Your task to perform on an android device: Search for "logitech g903" on walmart, select the first entry, add it to the cart, then select checkout. Image 0: 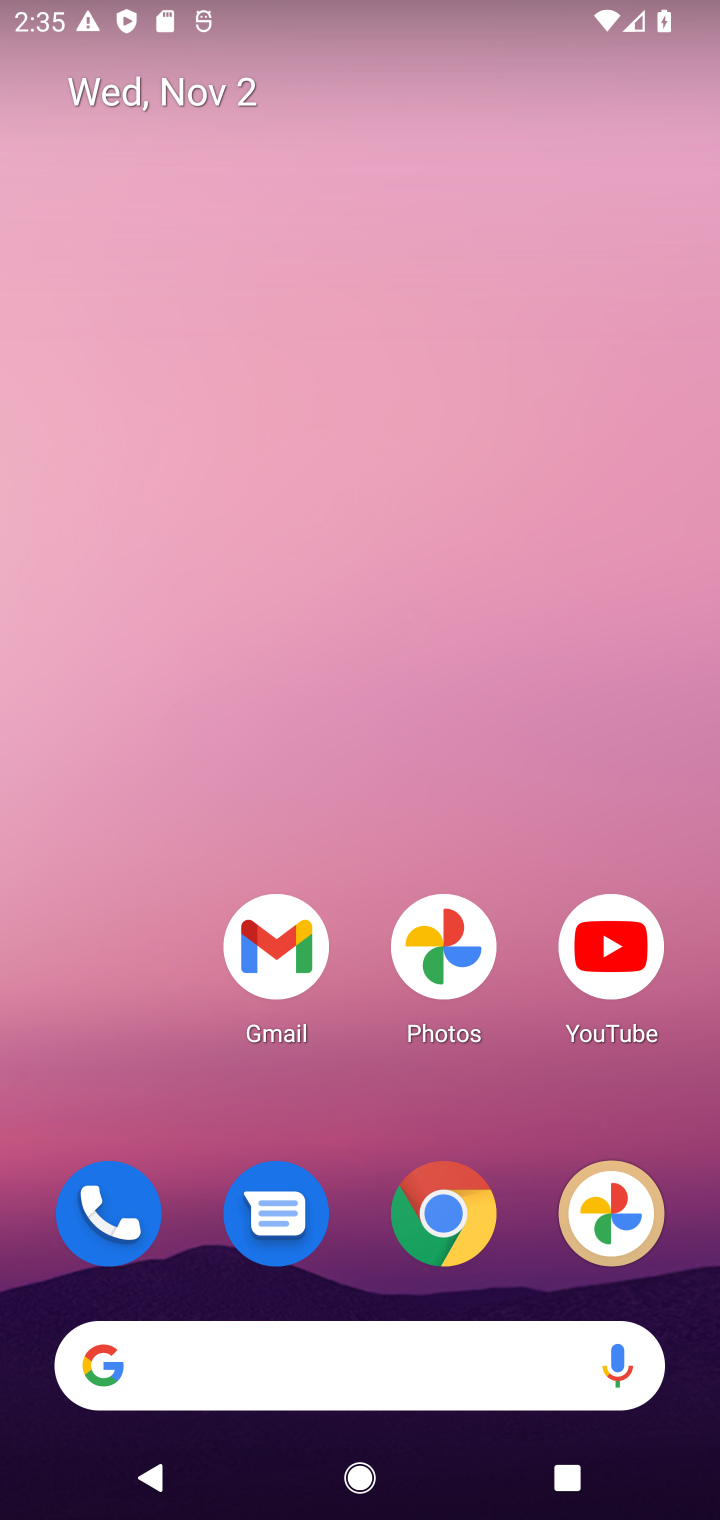
Step 0: click (423, 1232)
Your task to perform on an android device: Search for "logitech g903" on walmart, select the first entry, add it to the cart, then select checkout. Image 1: 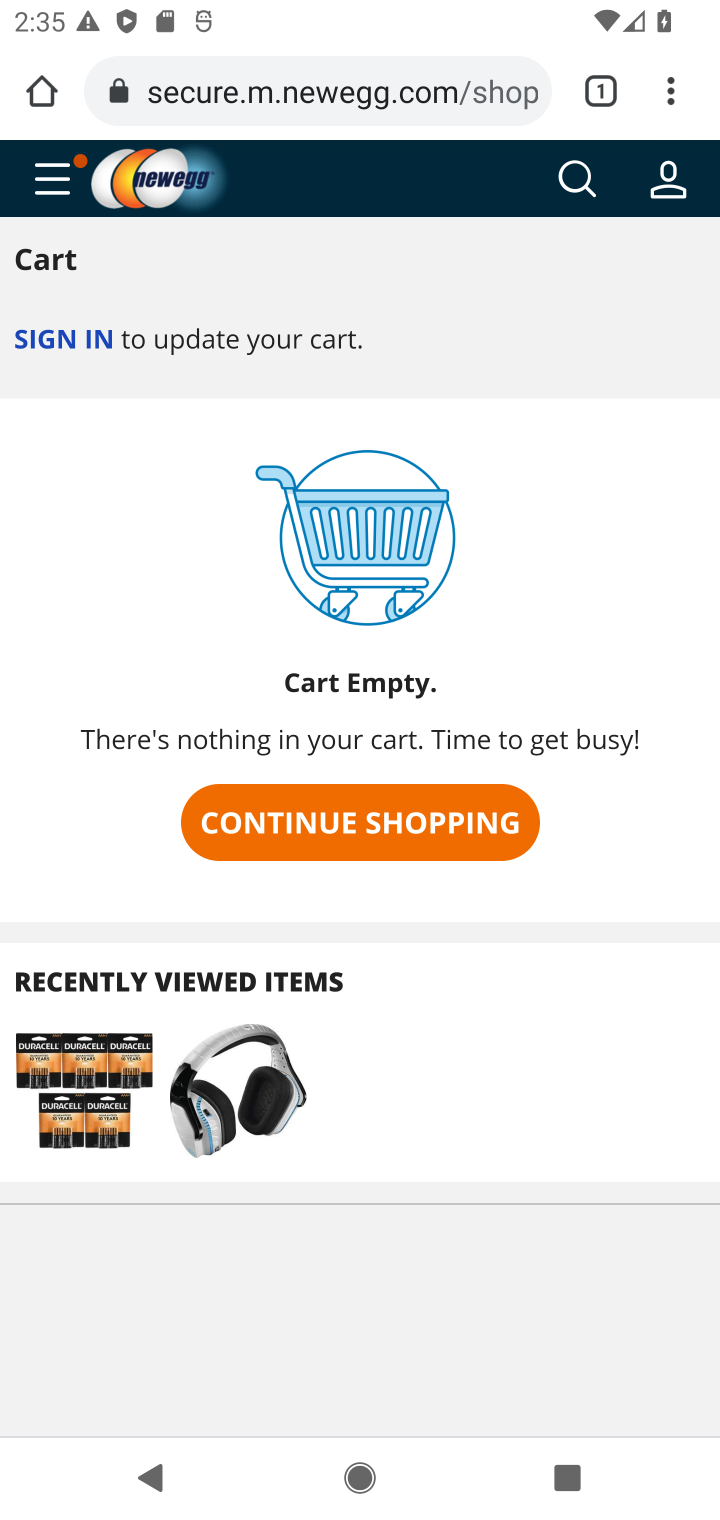
Step 1: click (438, 86)
Your task to perform on an android device: Search for "logitech g903" on walmart, select the first entry, add it to the cart, then select checkout. Image 2: 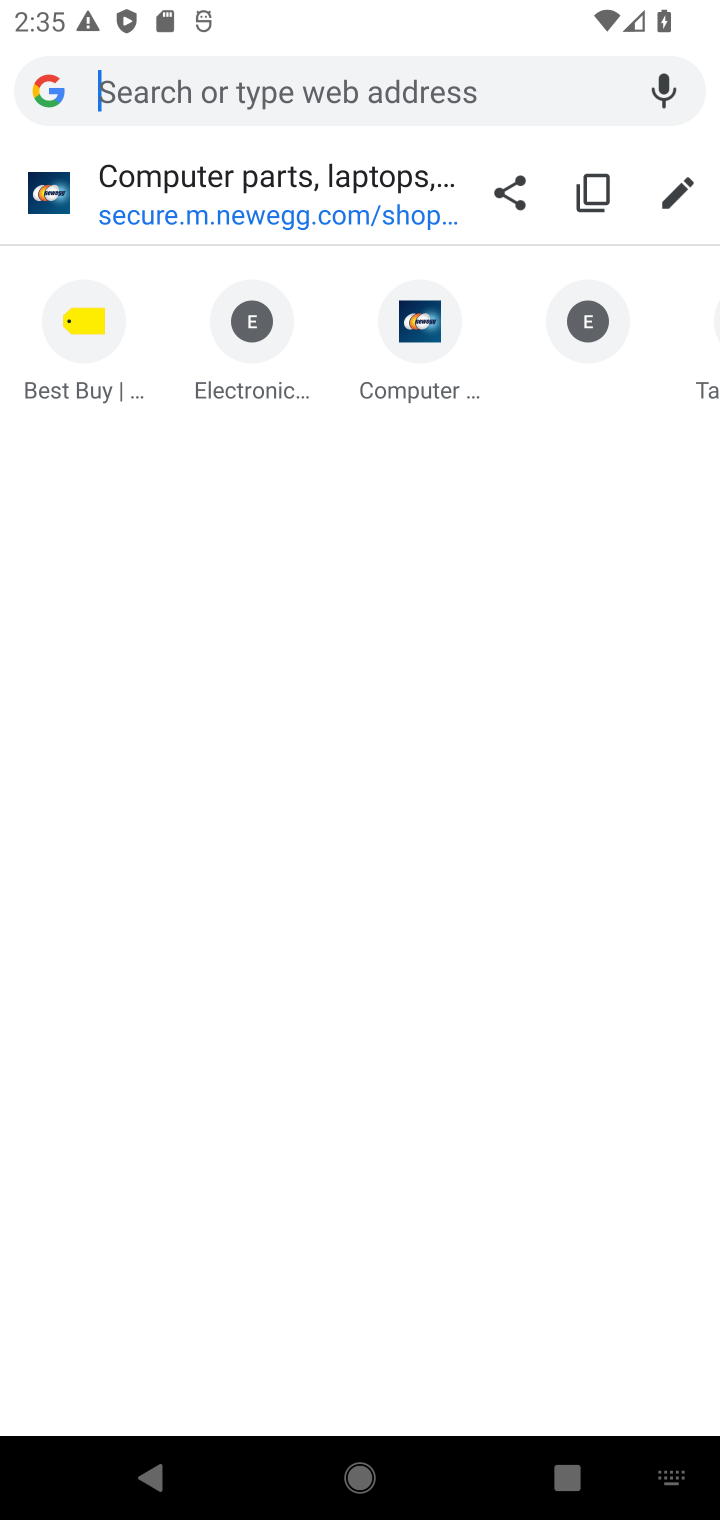
Step 2: type "walmart"
Your task to perform on an android device: Search for "logitech g903" on walmart, select the first entry, add it to the cart, then select checkout. Image 3: 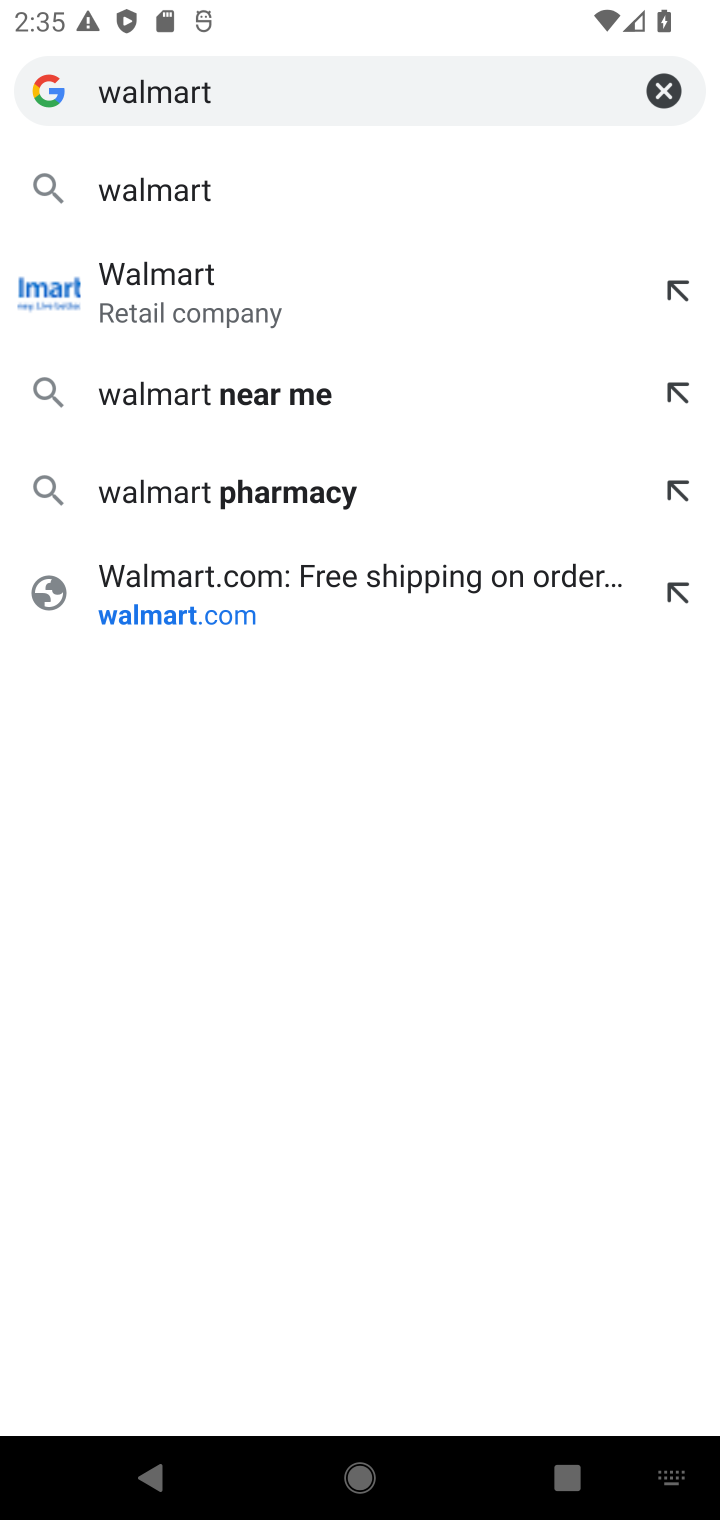
Step 3: click (158, 197)
Your task to perform on an android device: Search for "logitech g903" on walmart, select the first entry, add it to the cart, then select checkout. Image 4: 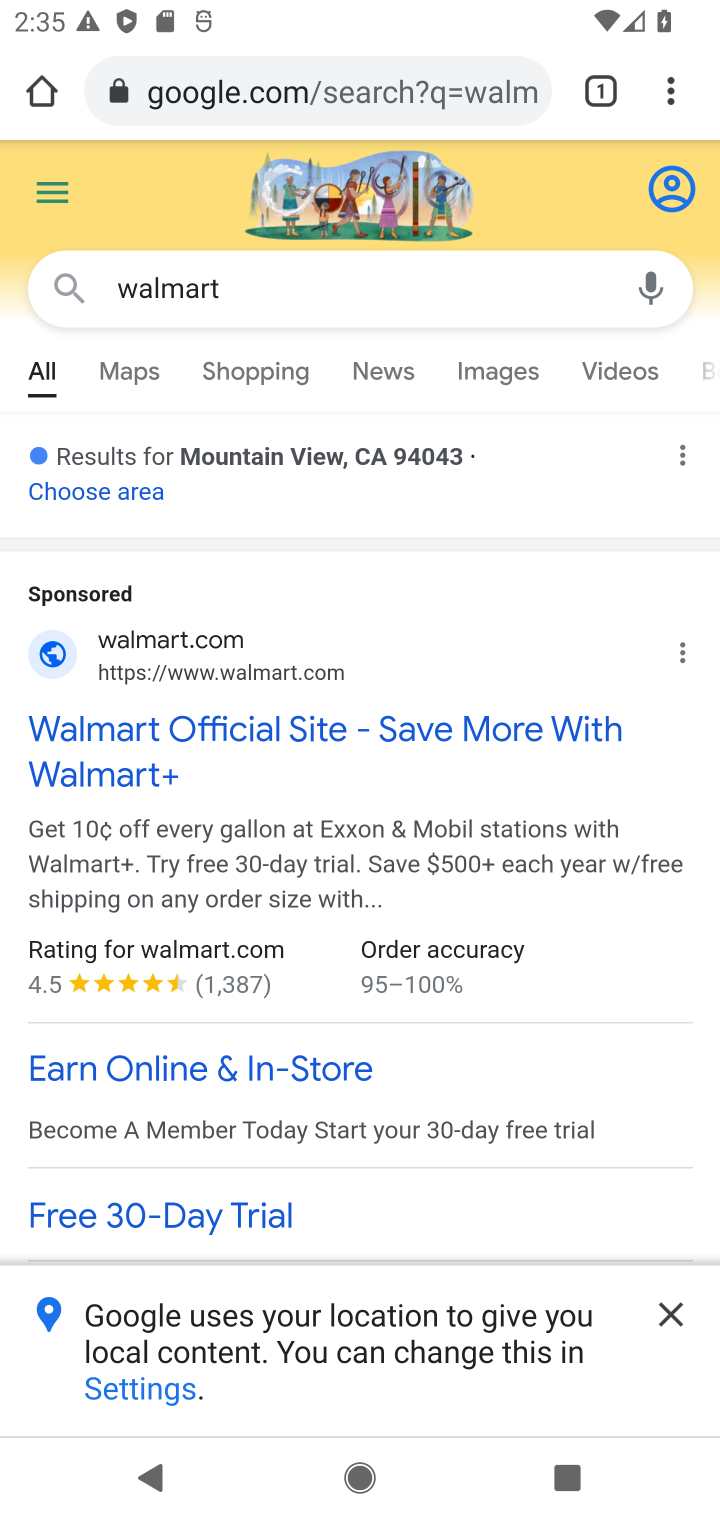
Step 4: drag from (556, 1060) to (457, 410)
Your task to perform on an android device: Search for "logitech g903" on walmart, select the first entry, add it to the cart, then select checkout. Image 5: 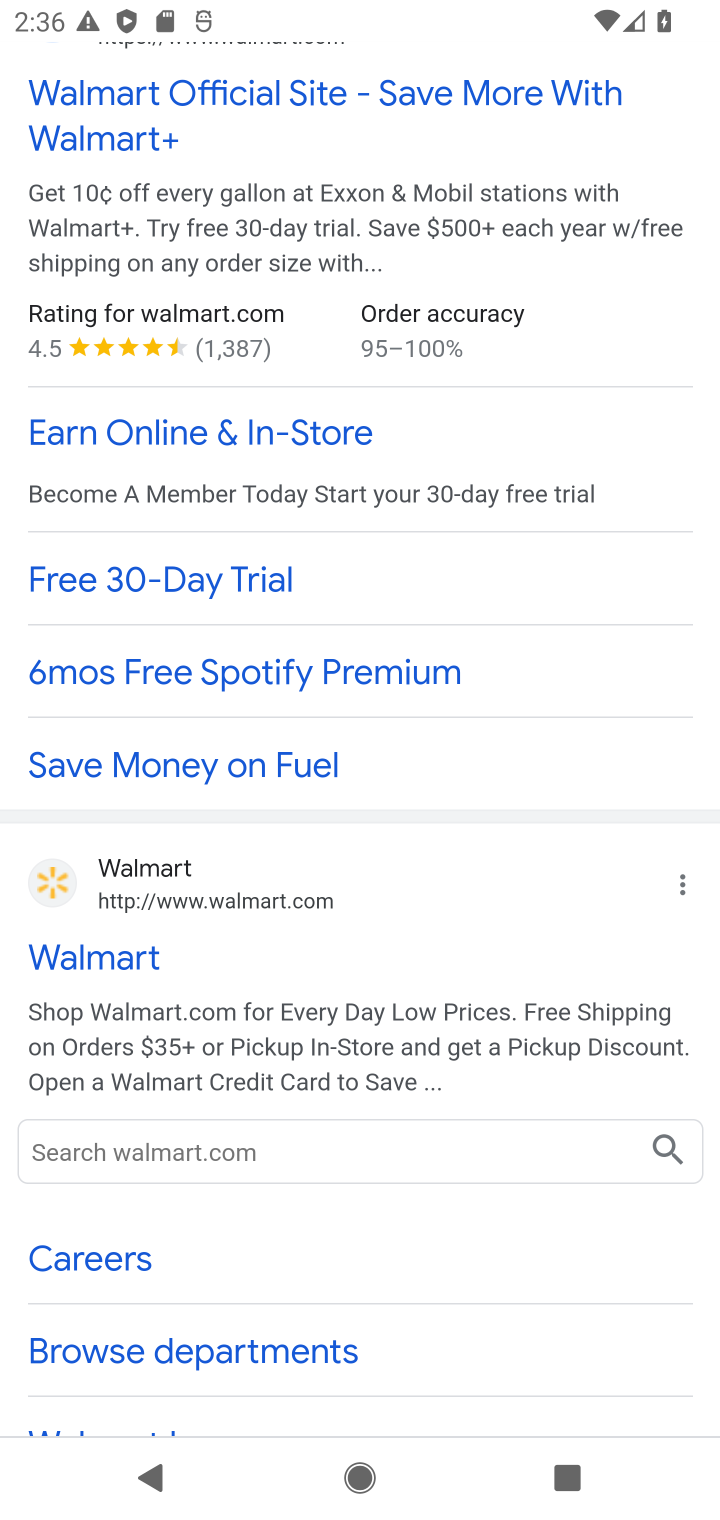
Step 5: click (99, 957)
Your task to perform on an android device: Search for "logitech g903" on walmart, select the first entry, add it to the cart, then select checkout. Image 6: 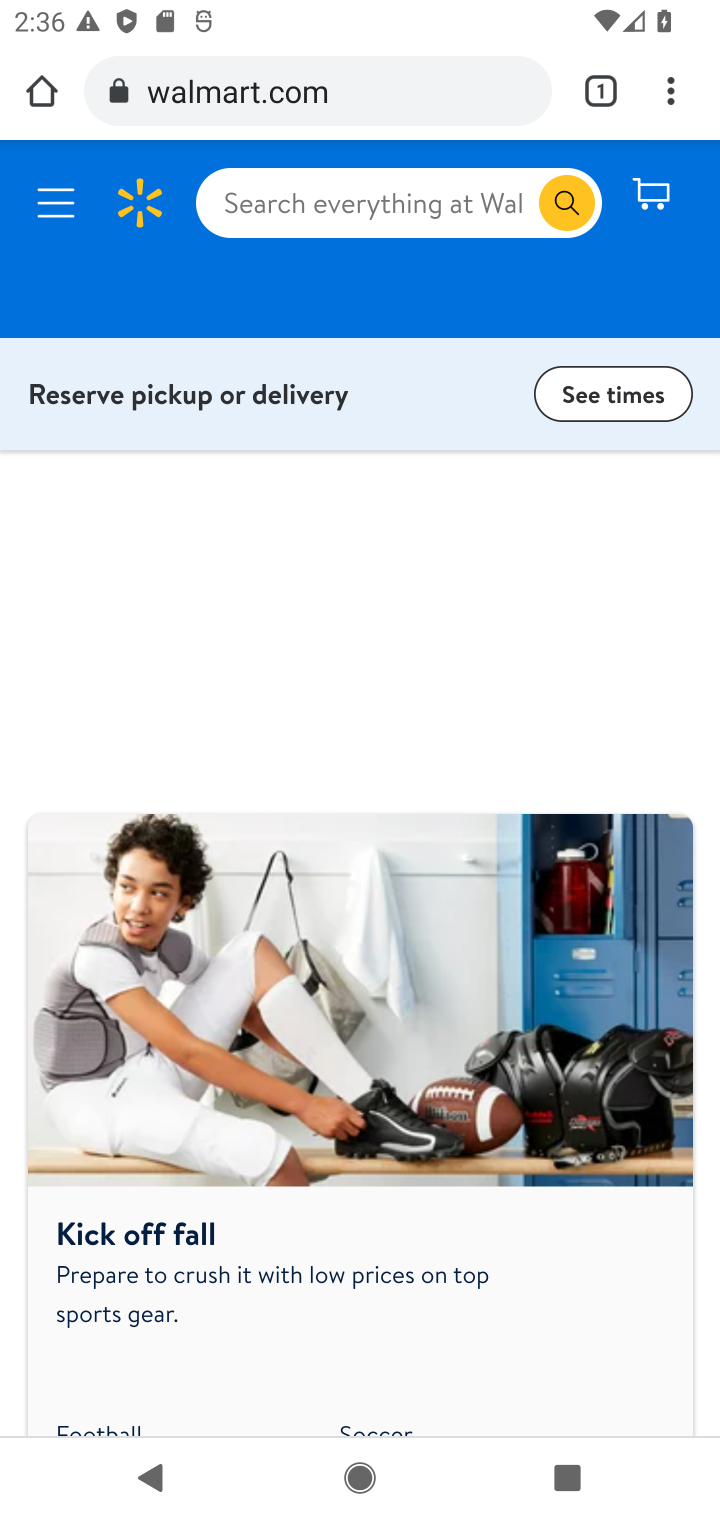
Step 6: click (437, 187)
Your task to perform on an android device: Search for "logitech g903" on walmart, select the first entry, add it to the cart, then select checkout. Image 7: 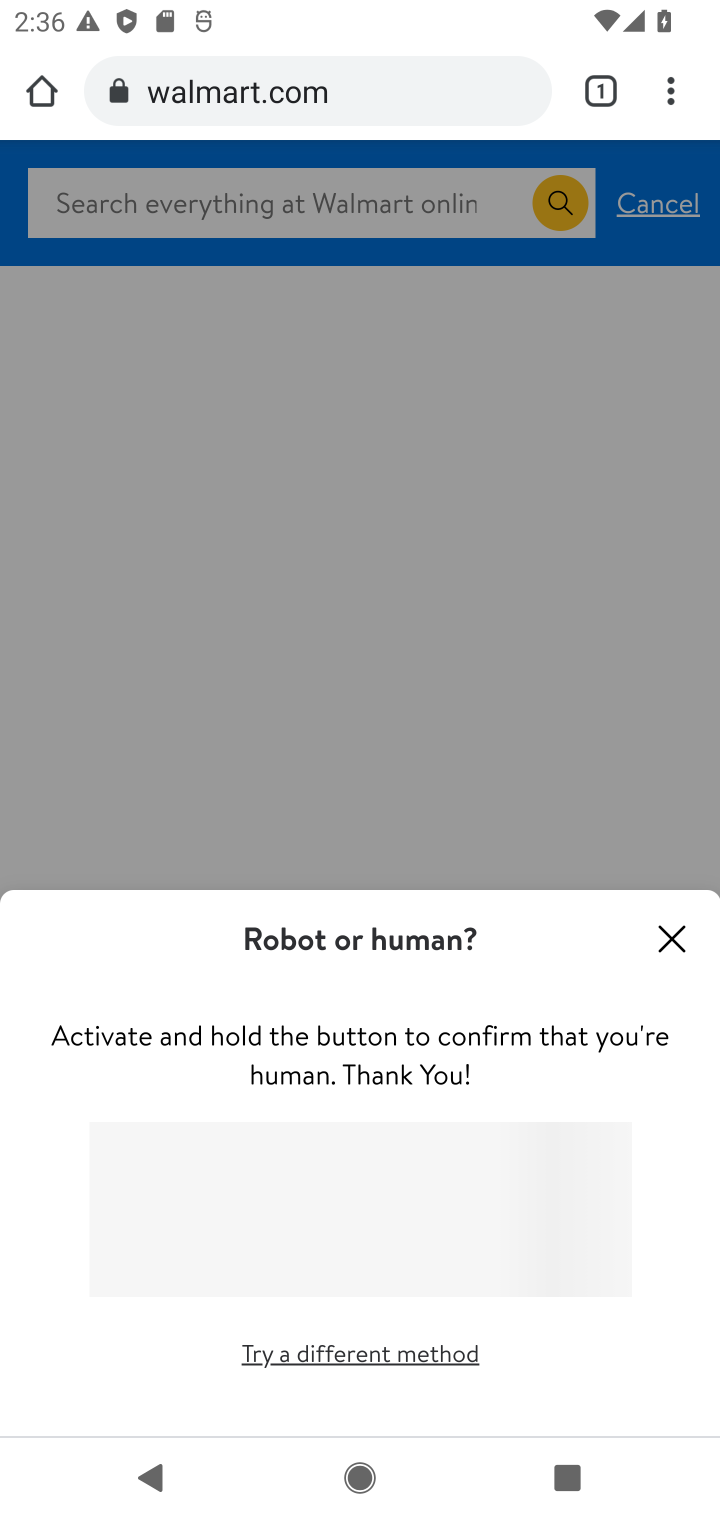
Step 7: click (669, 1110)
Your task to perform on an android device: Search for "logitech g903" on walmart, select the first entry, add it to the cart, then select checkout. Image 8: 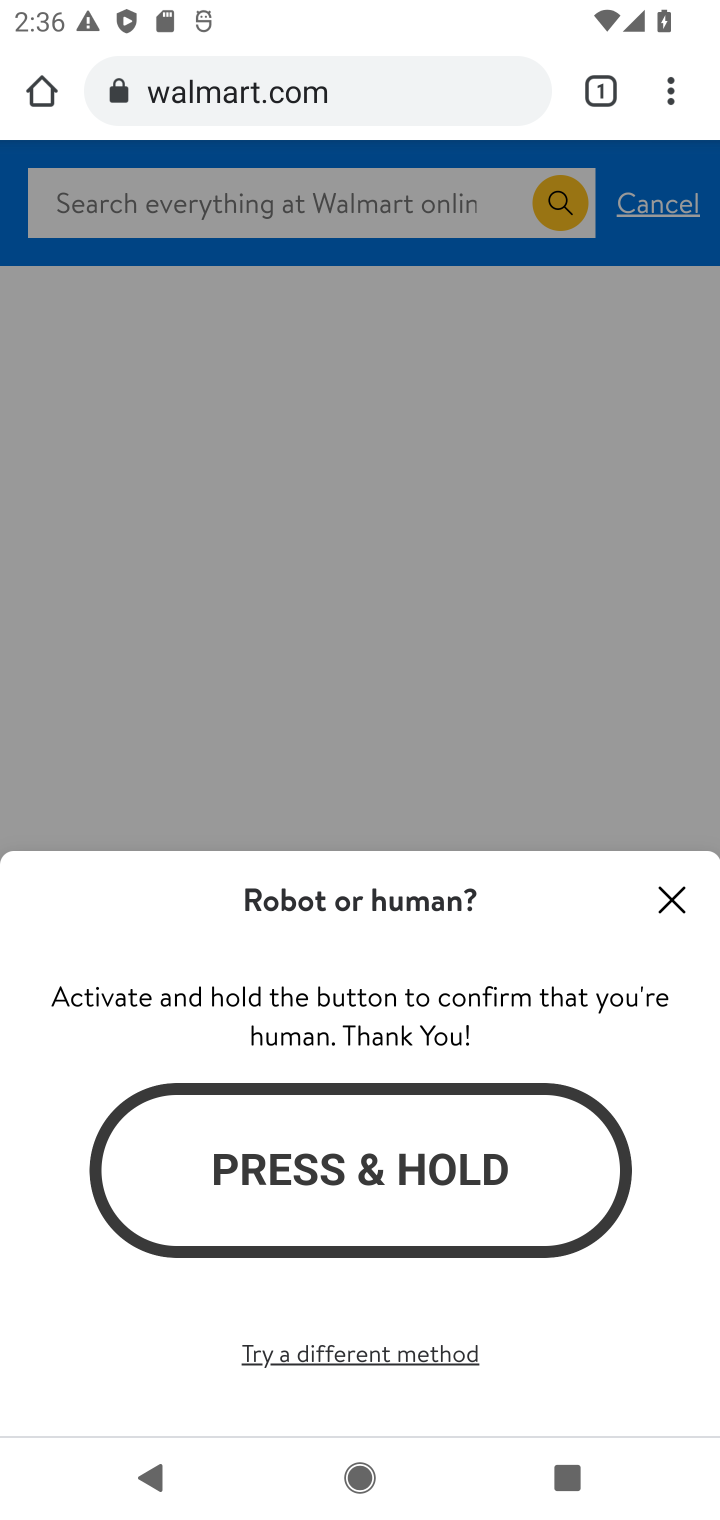
Step 8: click (668, 895)
Your task to perform on an android device: Search for "logitech g903" on walmart, select the first entry, add it to the cart, then select checkout. Image 9: 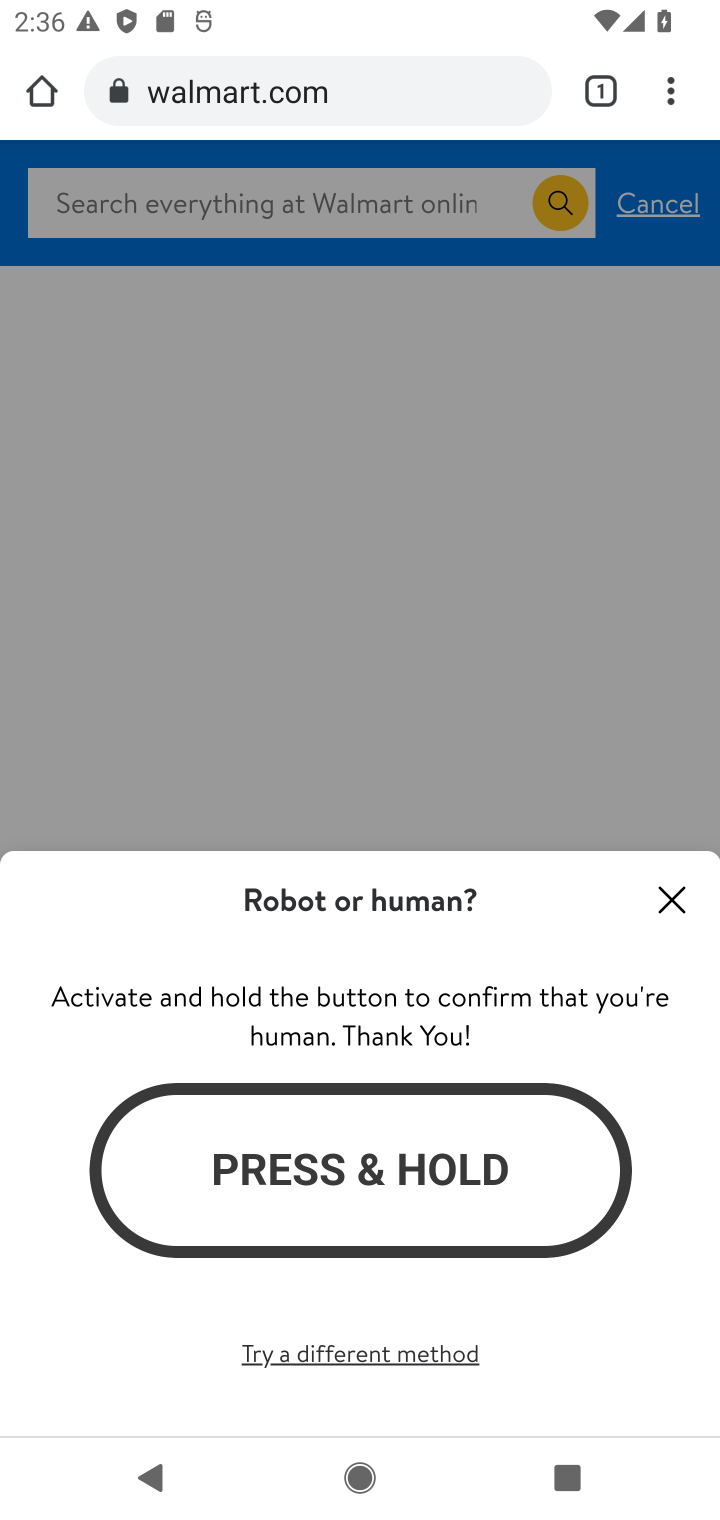
Step 9: click (435, 1179)
Your task to perform on an android device: Search for "logitech g903" on walmart, select the first entry, add it to the cart, then select checkout. Image 10: 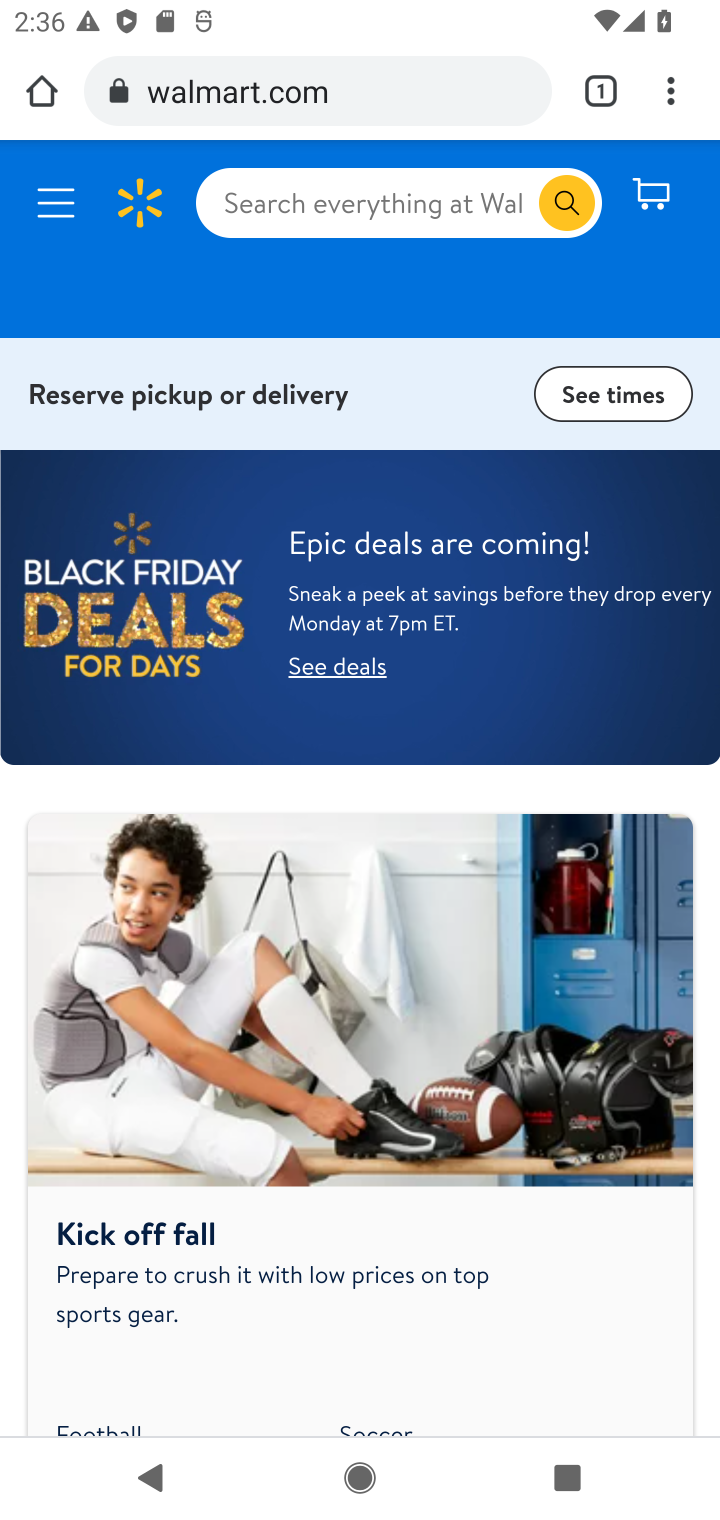
Step 10: click (443, 201)
Your task to perform on an android device: Search for "logitech g903" on walmart, select the first entry, add it to the cart, then select checkout. Image 11: 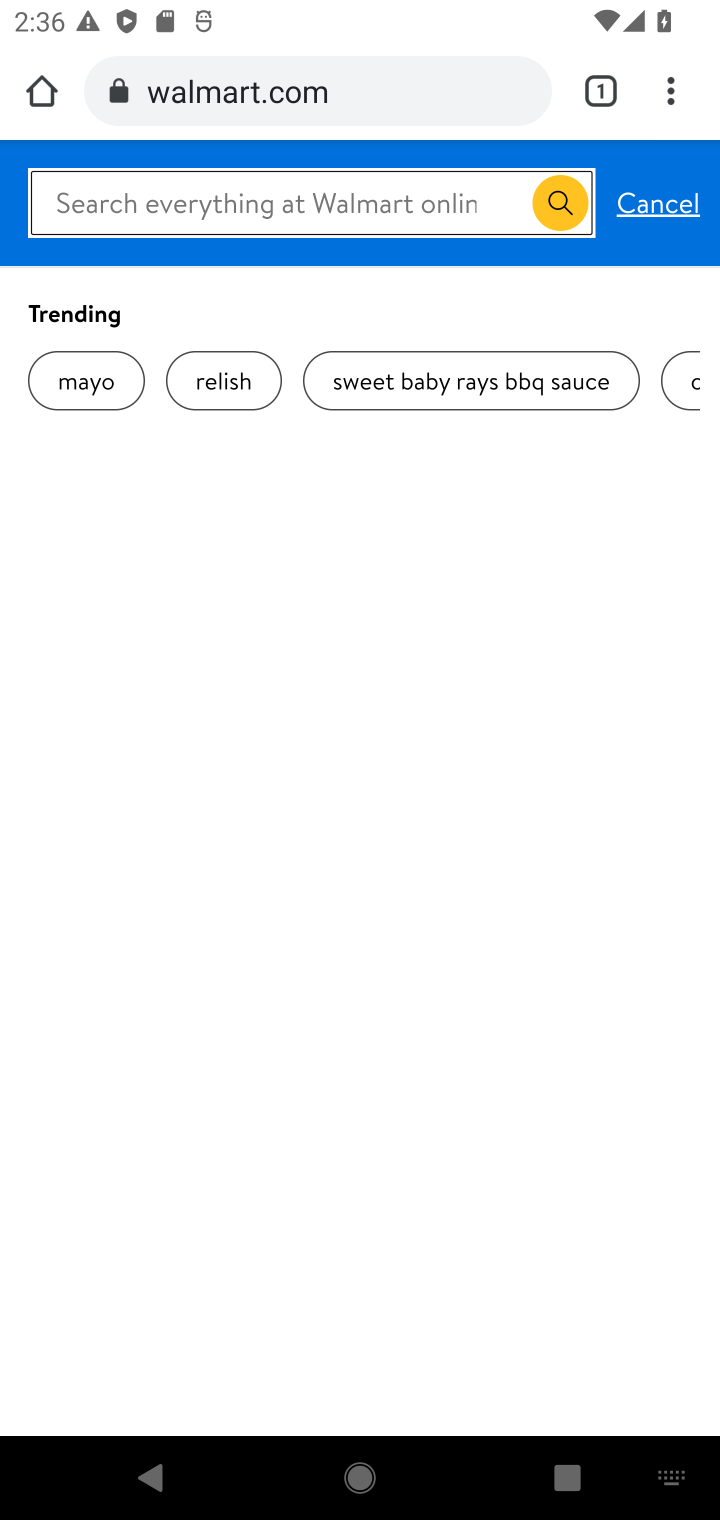
Step 11: type "logitech g903"
Your task to perform on an android device: Search for "logitech g903" on walmart, select the first entry, add it to the cart, then select checkout. Image 12: 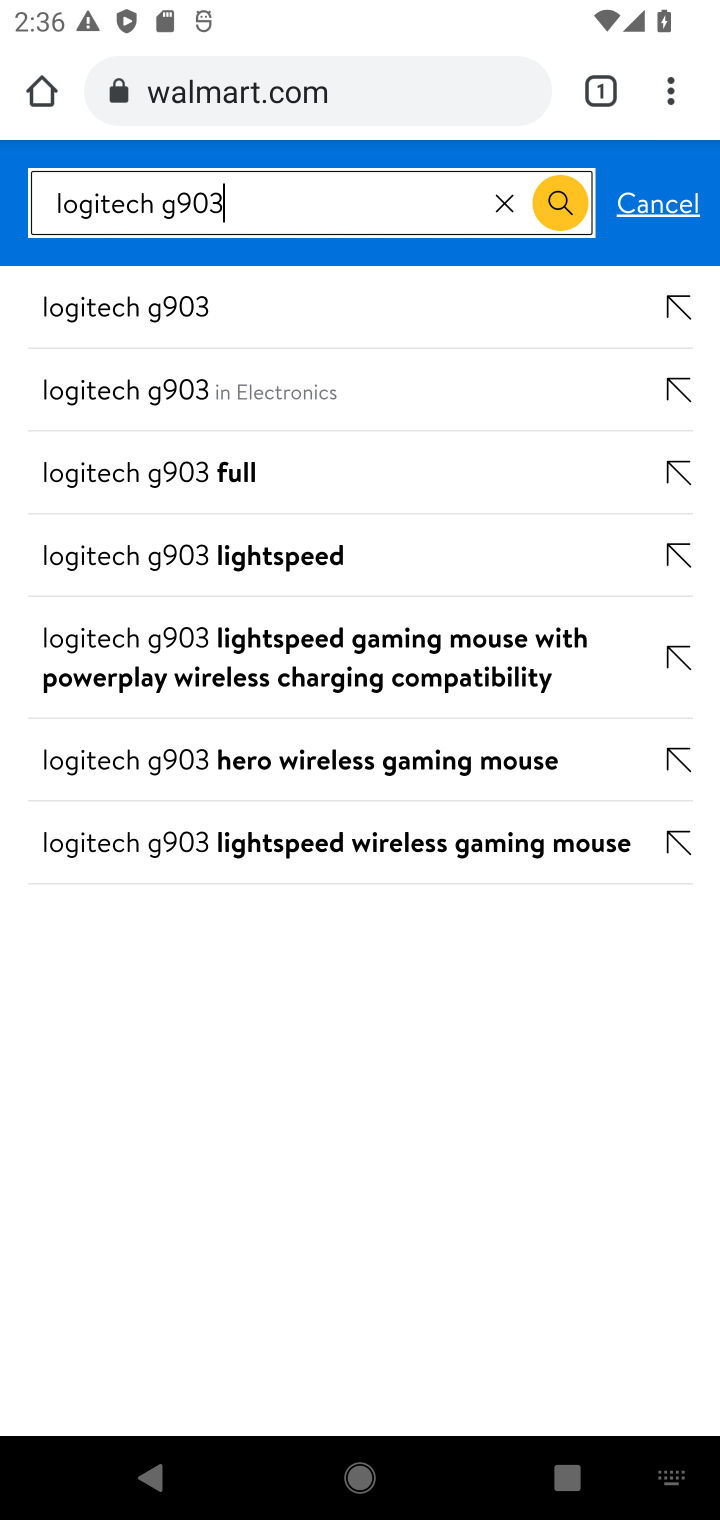
Step 12: click (147, 309)
Your task to perform on an android device: Search for "logitech g903" on walmart, select the first entry, add it to the cart, then select checkout. Image 13: 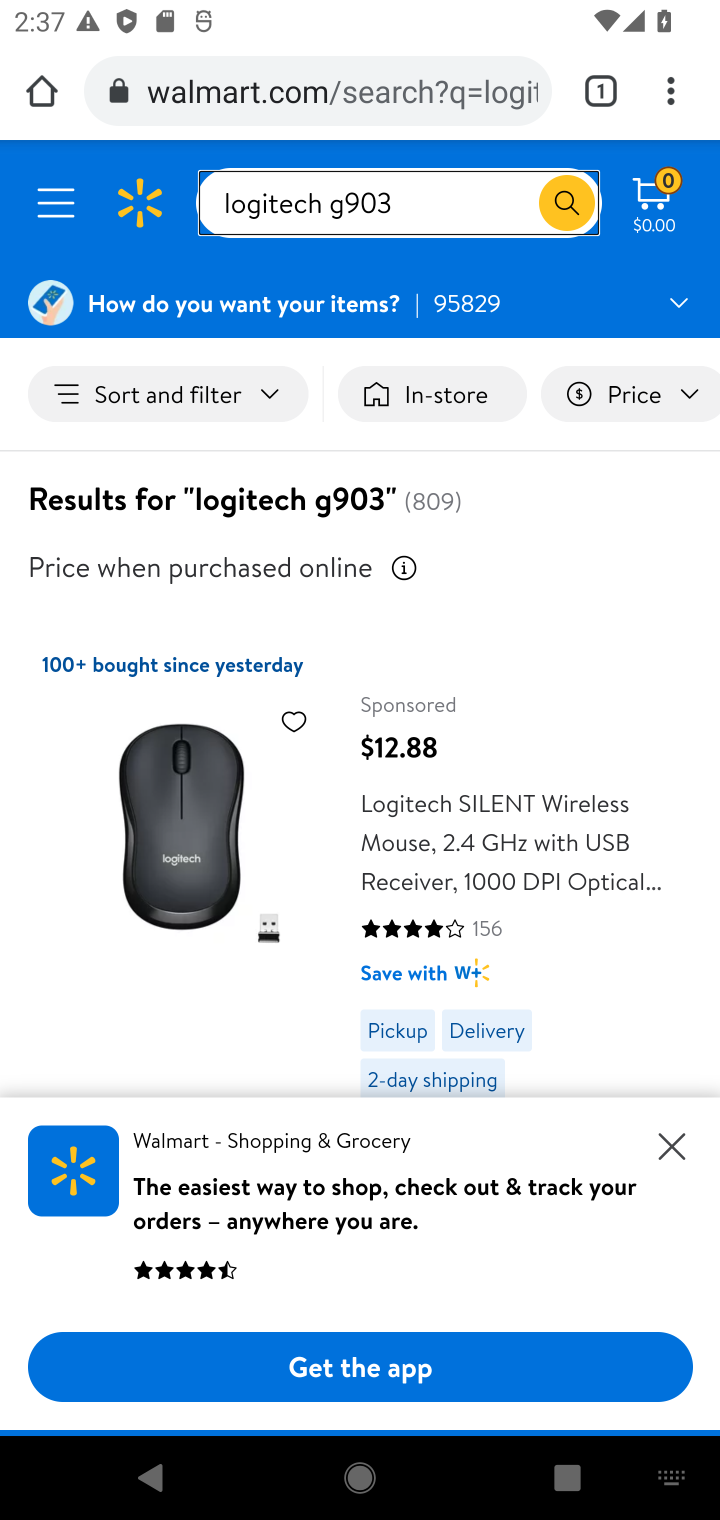
Step 13: click (170, 863)
Your task to perform on an android device: Search for "logitech g903" on walmart, select the first entry, add it to the cart, then select checkout. Image 14: 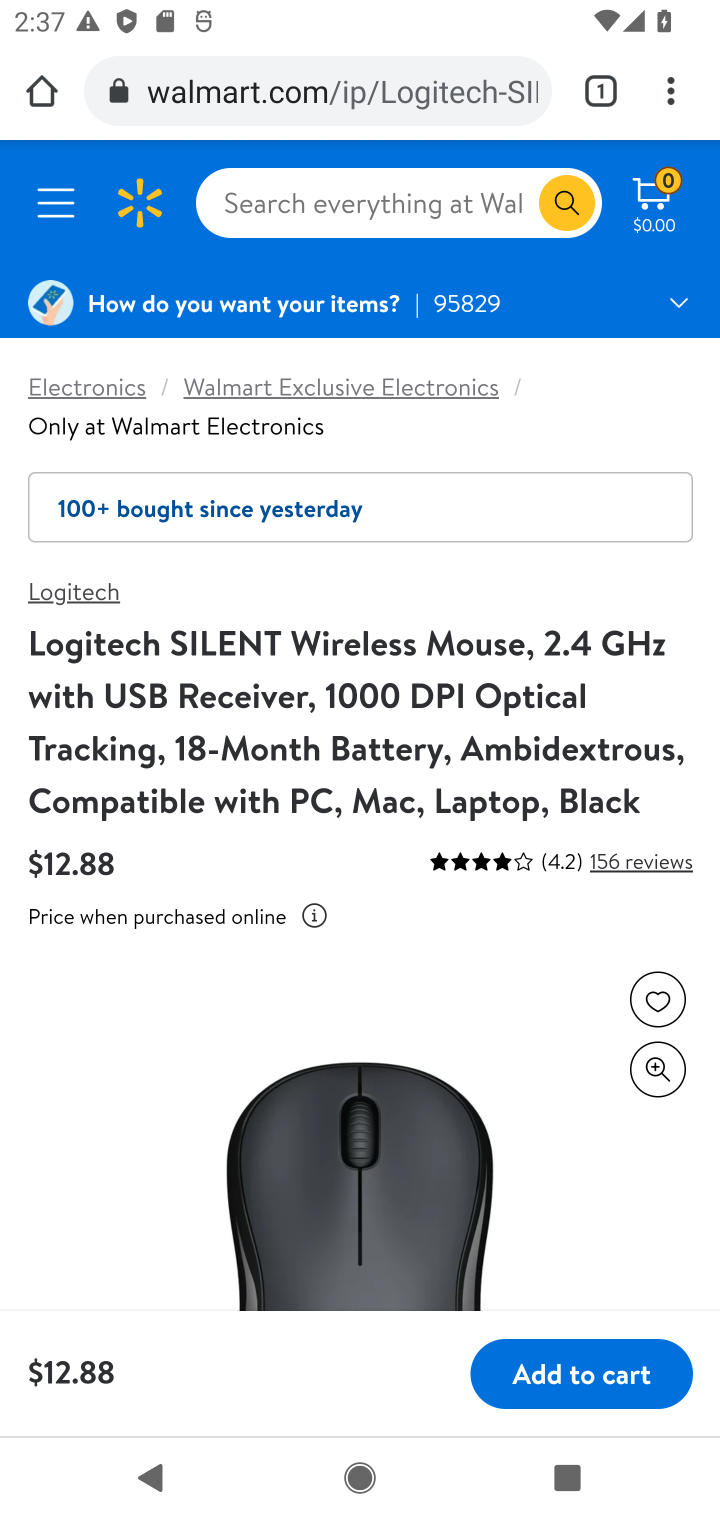
Step 14: click (584, 1385)
Your task to perform on an android device: Search for "logitech g903" on walmart, select the first entry, add it to the cart, then select checkout. Image 15: 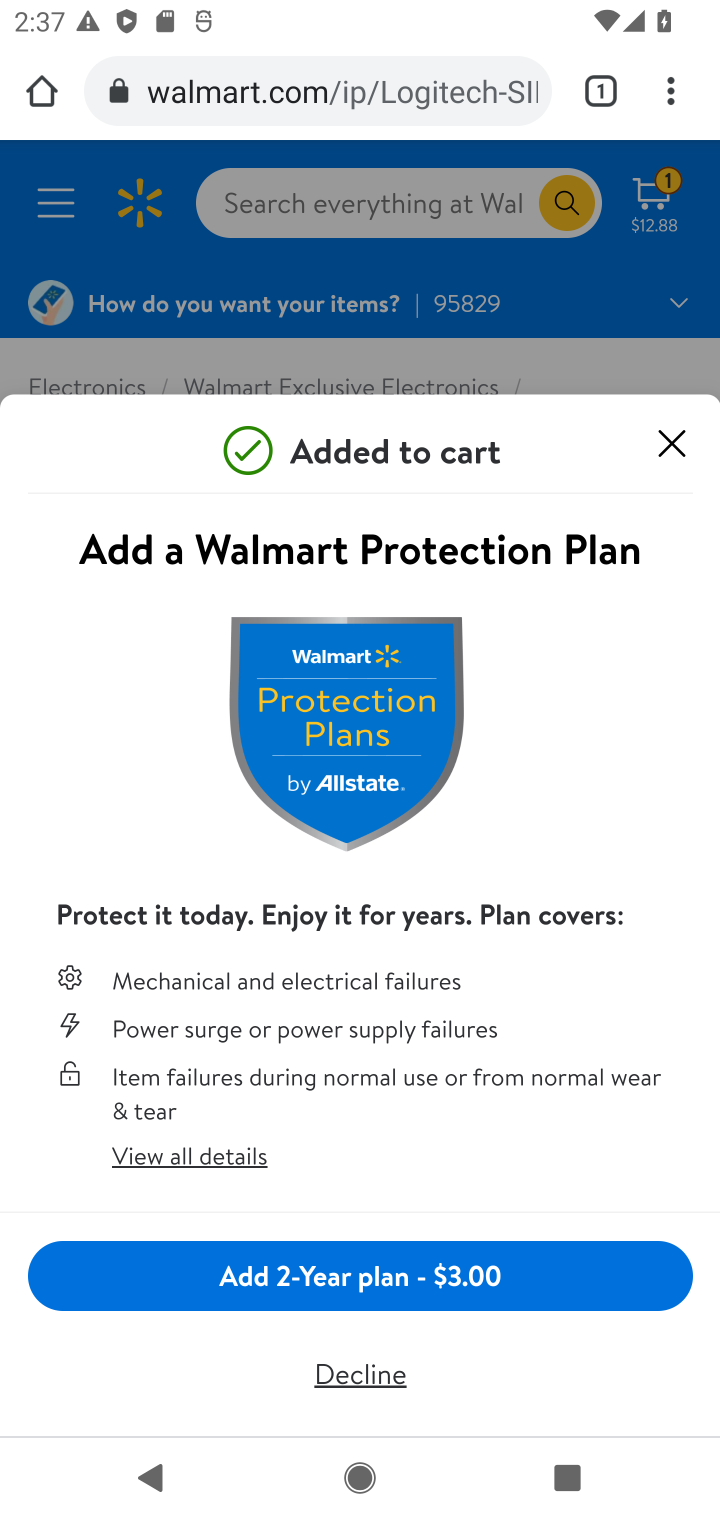
Step 15: click (669, 449)
Your task to perform on an android device: Search for "logitech g903" on walmart, select the first entry, add it to the cart, then select checkout. Image 16: 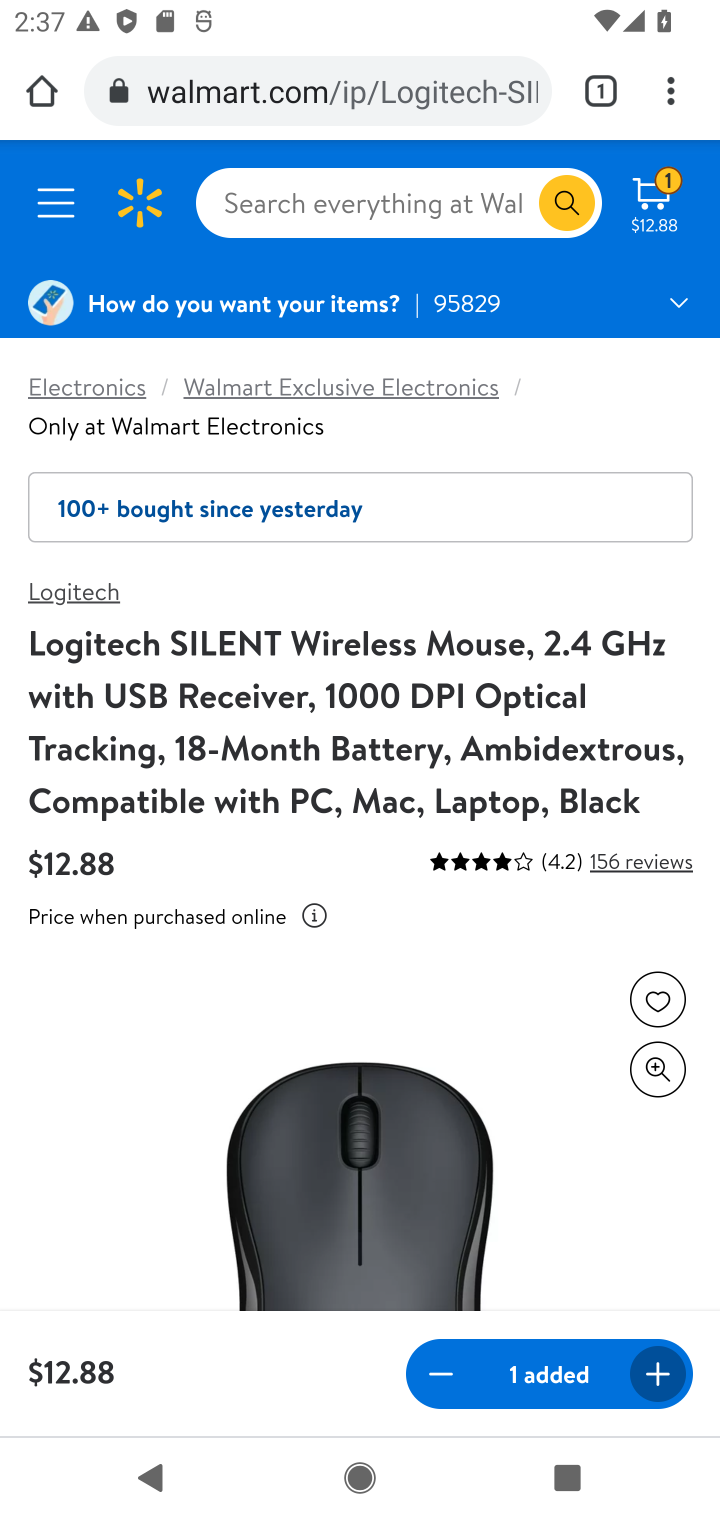
Step 16: click (663, 202)
Your task to perform on an android device: Search for "logitech g903" on walmart, select the first entry, add it to the cart, then select checkout. Image 17: 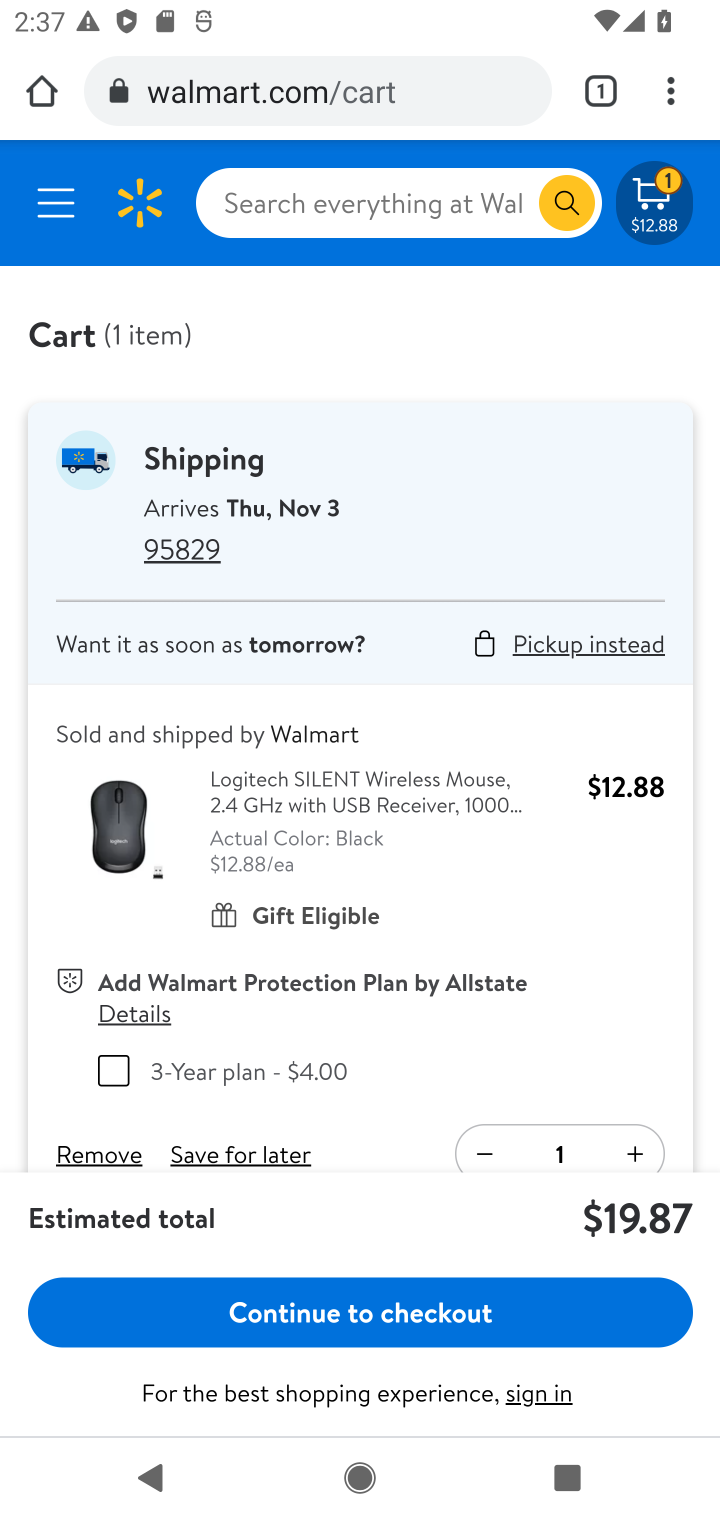
Step 17: click (311, 1320)
Your task to perform on an android device: Search for "logitech g903" on walmart, select the first entry, add it to the cart, then select checkout. Image 18: 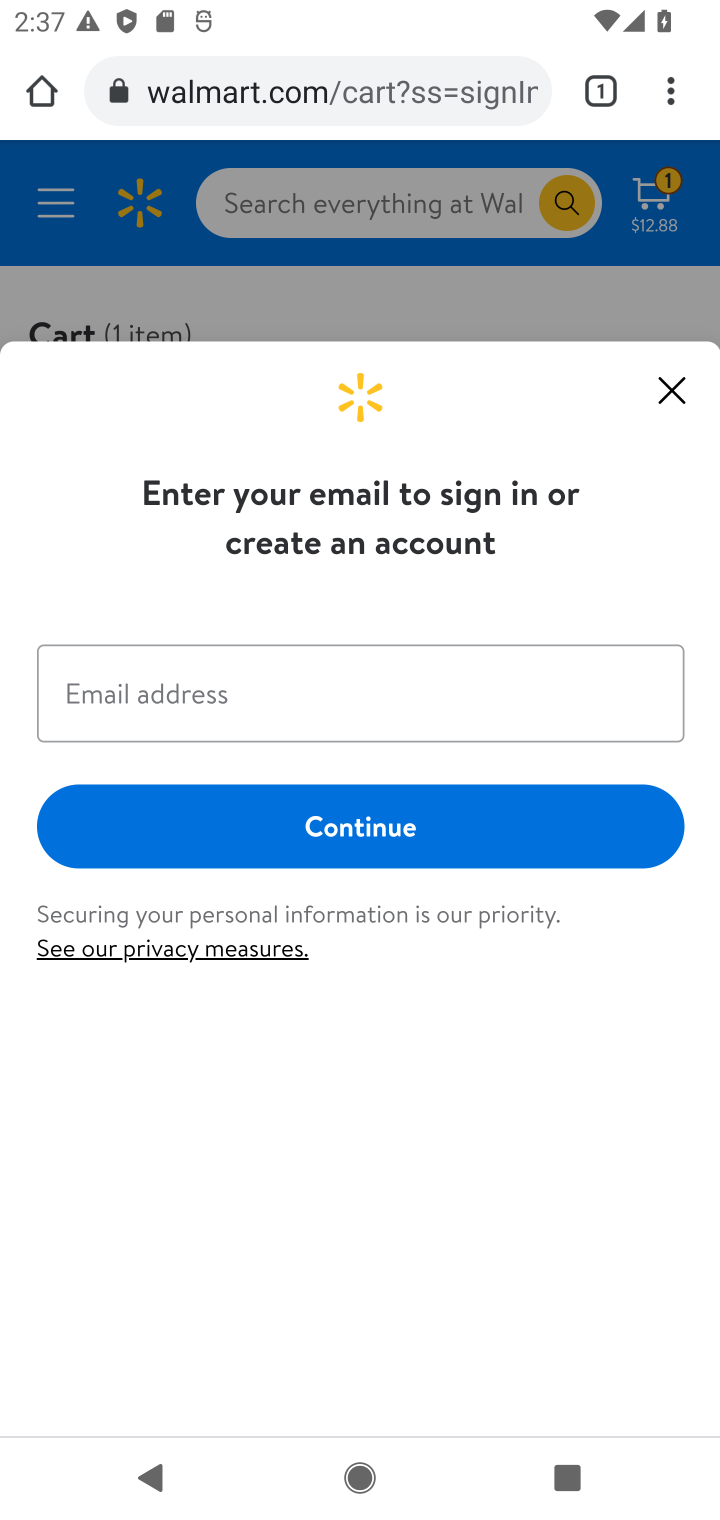
Step 18: task complete